Your task to perform on an android device: turn off airplane mode Image 0: 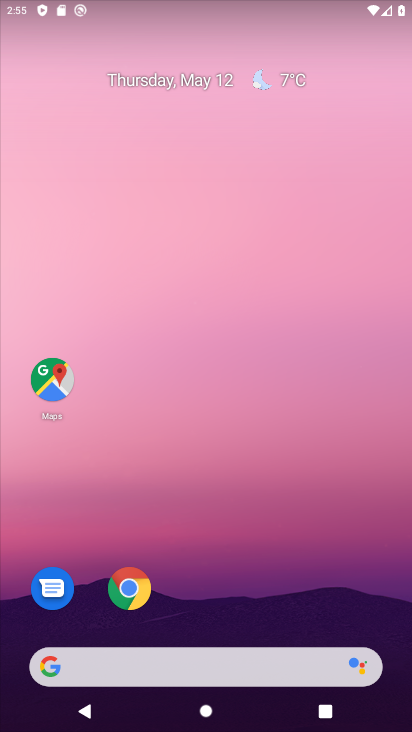
Step 0: drag from (247, 565) to (318, 121)
Your task to perform on an android device: turn off airplane mode Image 1: 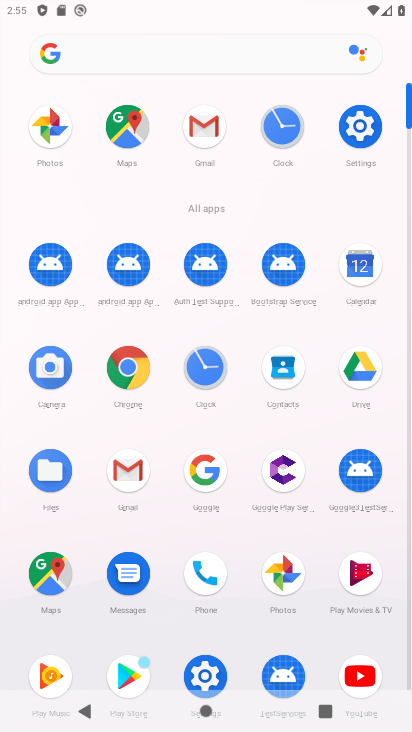
Step 1: click (363, 125)
Your task to perform on an android device: turn off airplane mode Image 2: 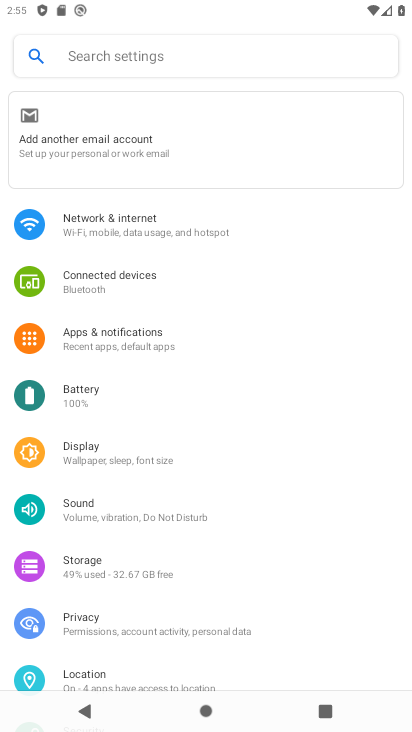
Step 2: click (165, 229)
Your task to perform on an android device: turn off airplane mode Image 3: 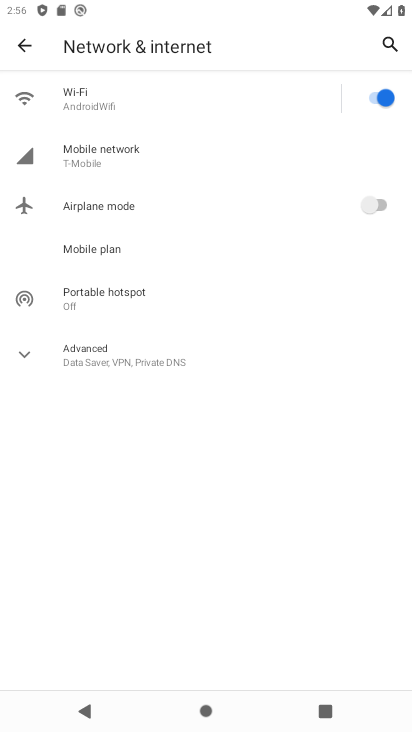
Step 3: task complete